Your task to perform on an android device: Open location settings Image 0: 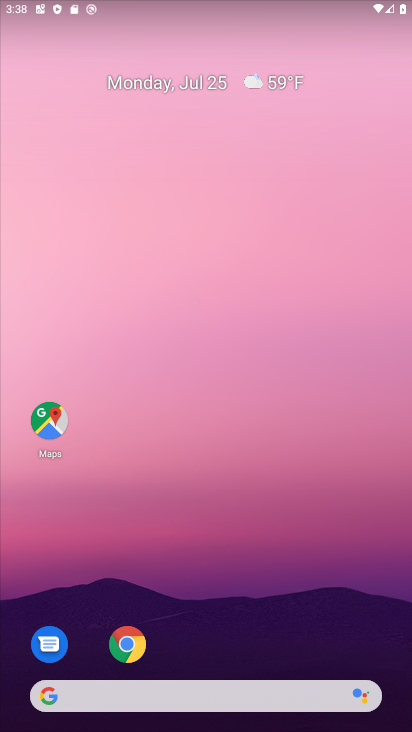
Step 0: drag from (198, 677) to (305, 178)
Your task to perform on an android device: Open location settings Image 1: 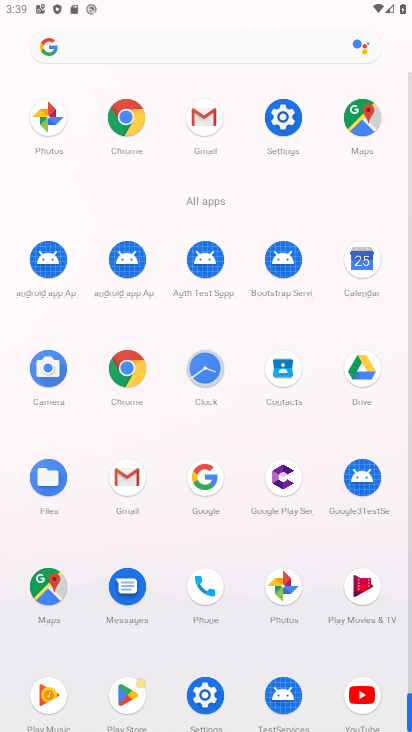
Step 1: click (284, 118)
Your task to perform on an android device: Open location settings Image 2: 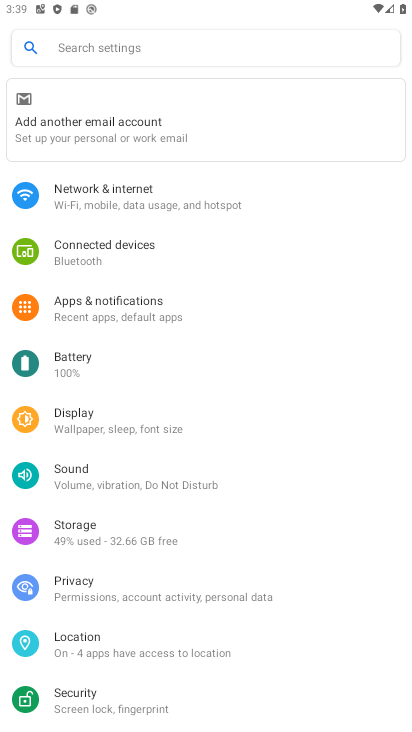
Step 2: click (69, 642)
Your task to perform on an android device: Open location settings Image 3: 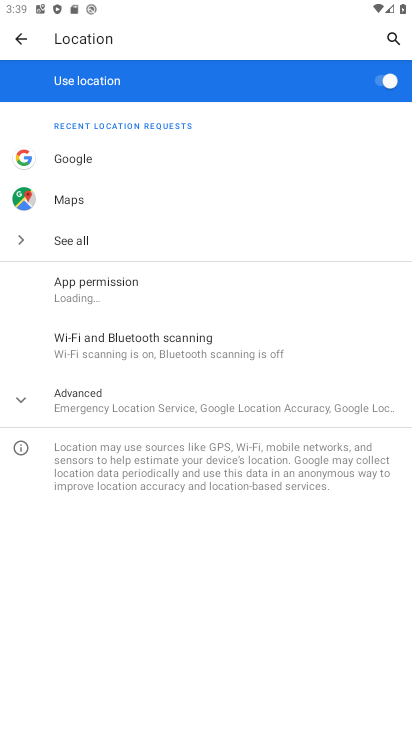
Step 3: click (75, 400)
Your task to perform on an android device: Open location settings Image 4: 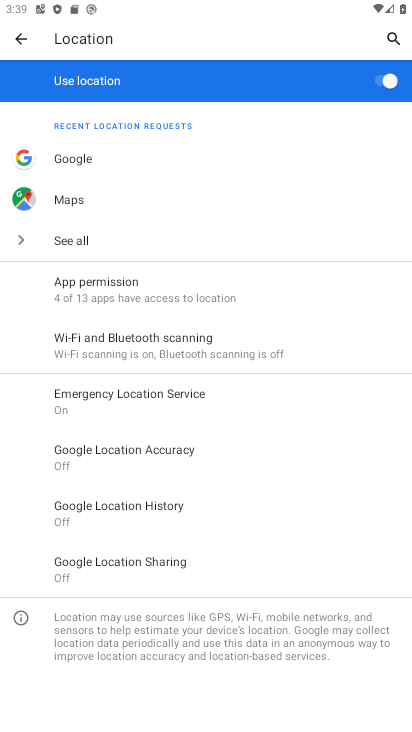
Step 4: task complete